Your task to perform on an android device: Go to calendar. Show me events next week Image 0: 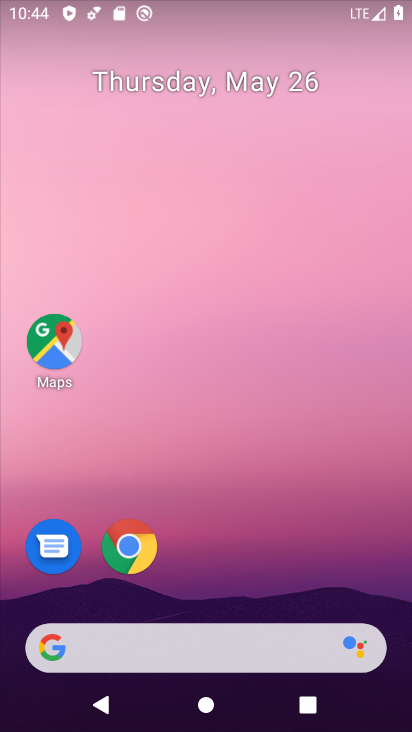
Step 0: drag from (249, 513) to (264, 149)
Your task to perform on an android device: Go to calendar. Show me events next week Image 1: 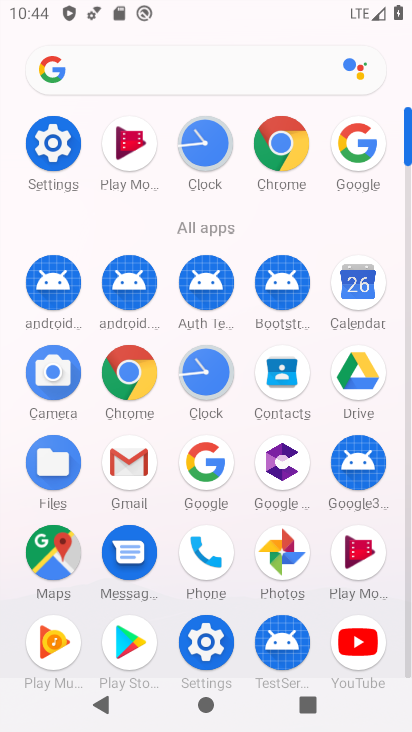
Step 1: click (347, 283)
Your task to perform on an android device: Go to calendar. Show me events next week Image 2: 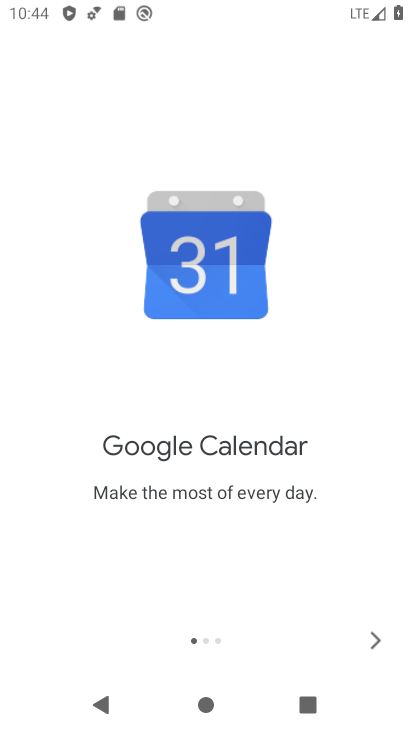
Step 2: click (376, 648)
Your task to perform on an android device: Go to calendar. Show me events next week Image 3: 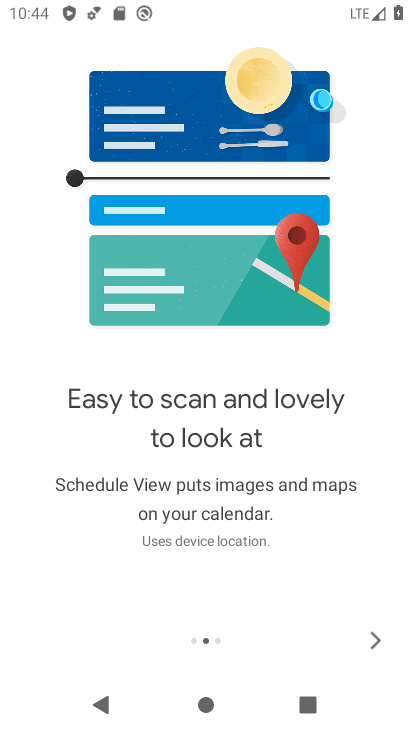
Step 3: click (376, 647)
Your task to perform on an android device: Go to calendar. Show me events next week Image 4: 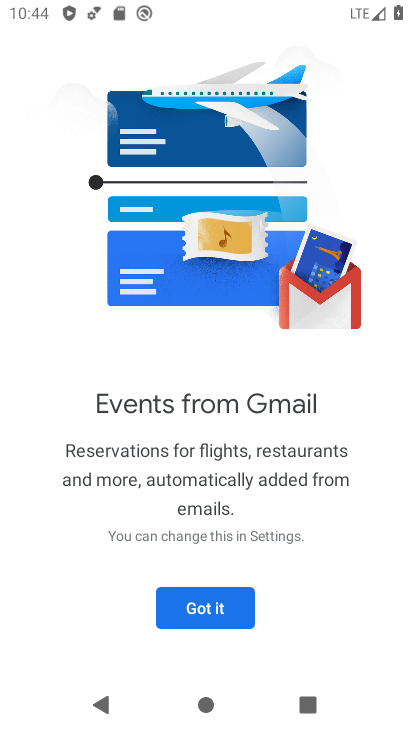
Step 4: click (193, 610)
Your task to perform on an android device: Go to calendar. Show me events next week Image 5: 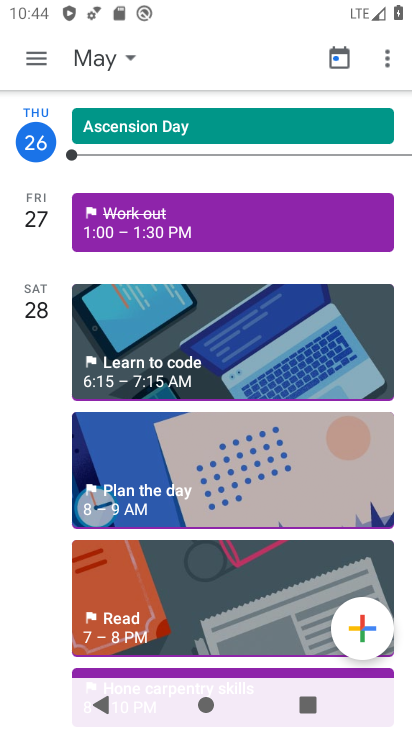
Step 5: click (116, 58)
Your task to perform on an android device: Go to calendar. Show me events next week Image 6: 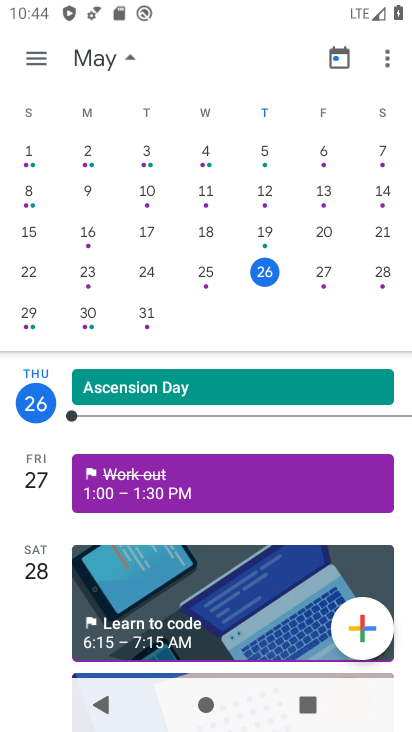
Step 6: click (90, 317)
Your task to perform on an android device: Go to calendar. Show me events next week Image 7: 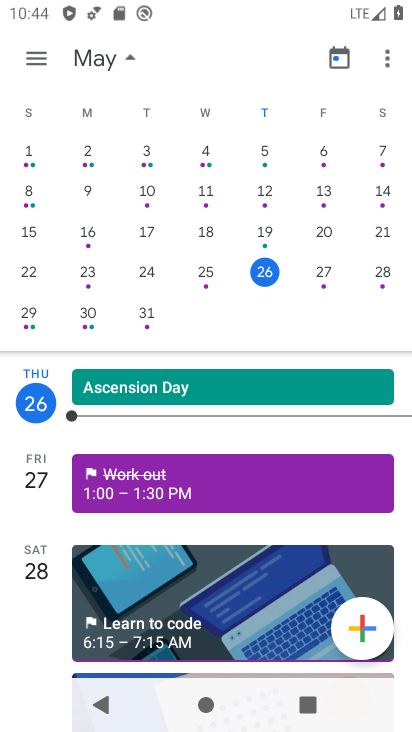
Step 7: click (85, 313)
Your task to perform on an android device: Go to calendar. Show me events next week Image 8: 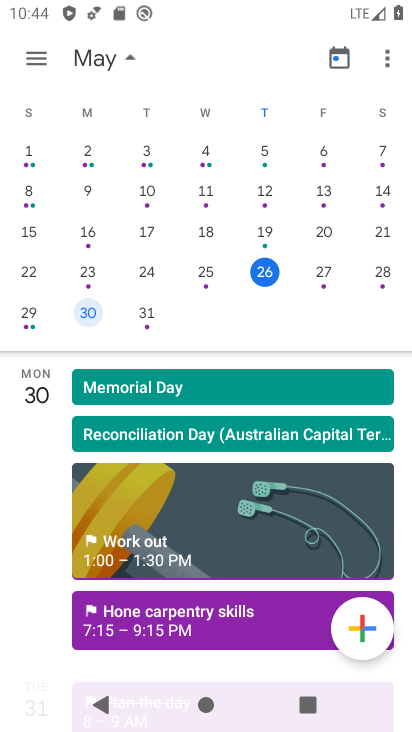
Step 8: task complete